Your task to perform on an android device: Search for vegetarian restaurants on Maps Image 0: 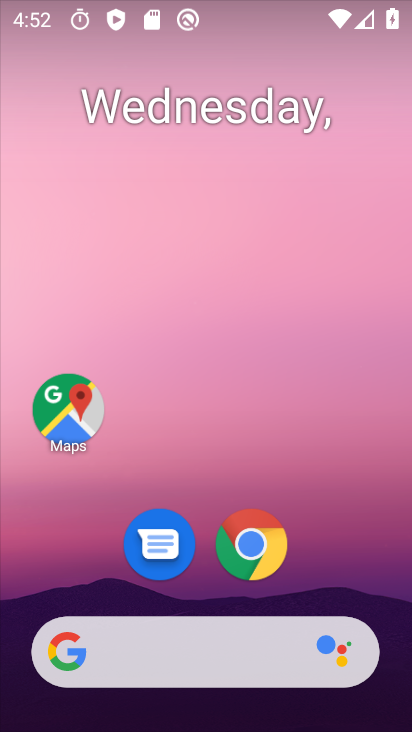
Step 0: drag from (195, 593) to (164, 82)
Your task to perform on an android device: Search for vegetarian restaurants on Maps Image 1: 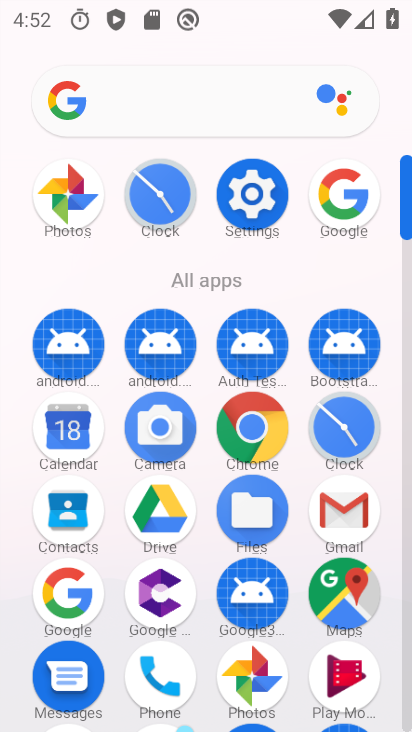
Step 1: click (354, 578)
Your task to perform on an android device: Search for vegetarian restaurants on Maps Image 2: 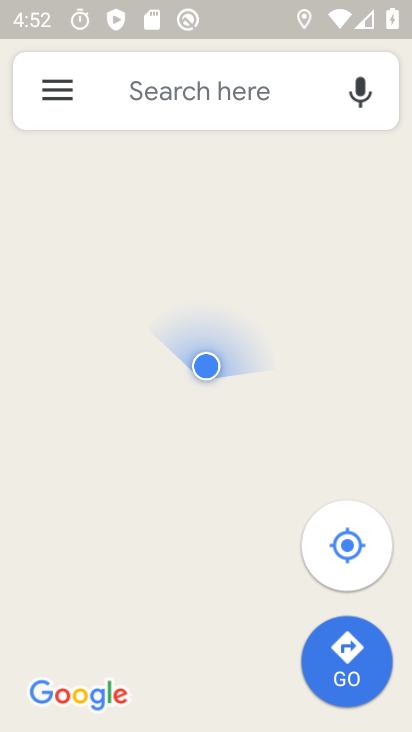
Step 2: click (238, 91)
Your task to perform on an android device: Search for vegetarian restaurants on Maps Image 3: 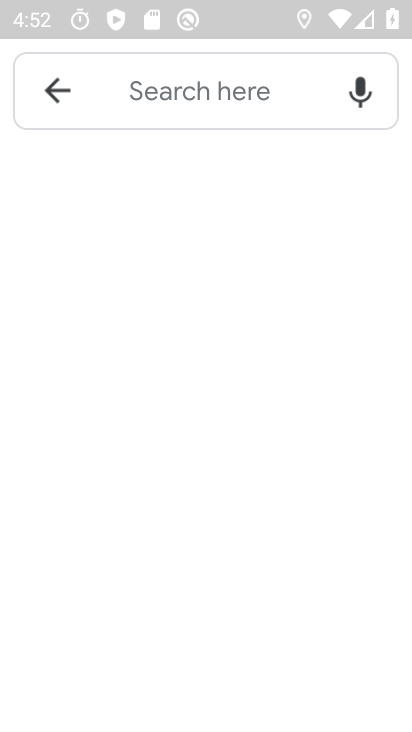
Step 3: click (147, 76)
Your task to perform on an android device: Search for vegetarian restaurants on Maps Image 4: 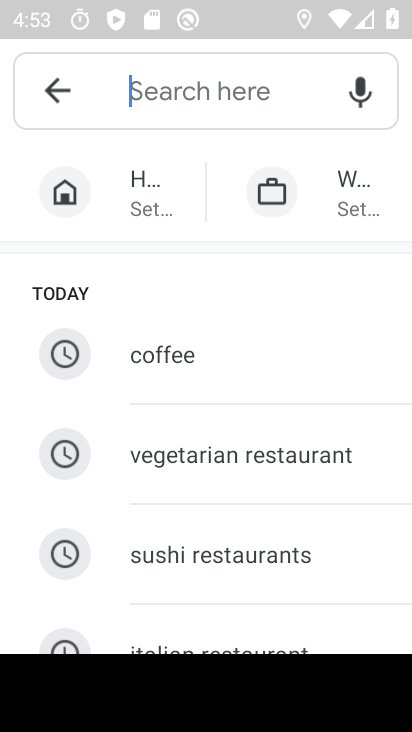
Step 4: click (139, 439)
Your task to perform on an android device: Search for vegetarian restaurants on Maps Image 5: 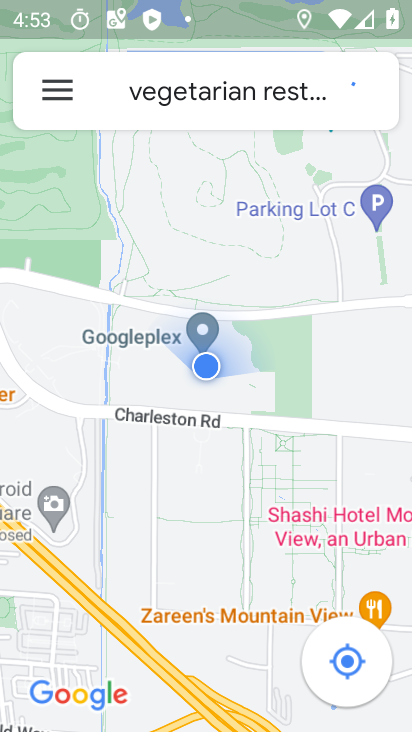
Step 5: task complete